Your task to perform on an android device: change notifications settings Image 0: 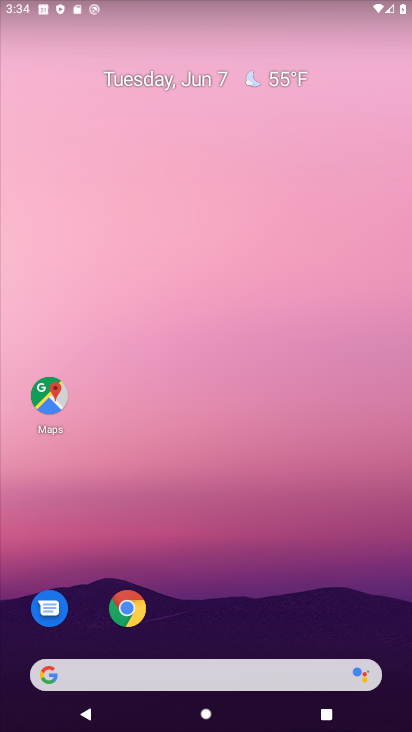
Step 0: drag from (199, 641) to (235, 160)
Your task to perform on an android device: change notifications settings Image 1: 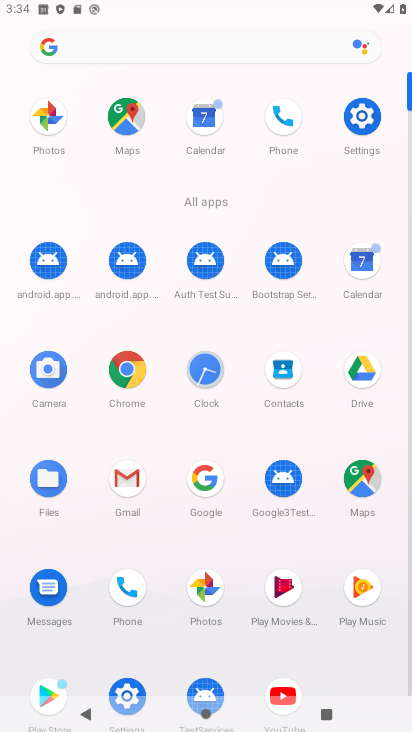
Step 1: click (134, 686)
Your task to perform on an android device: change notifications settings Image 2: 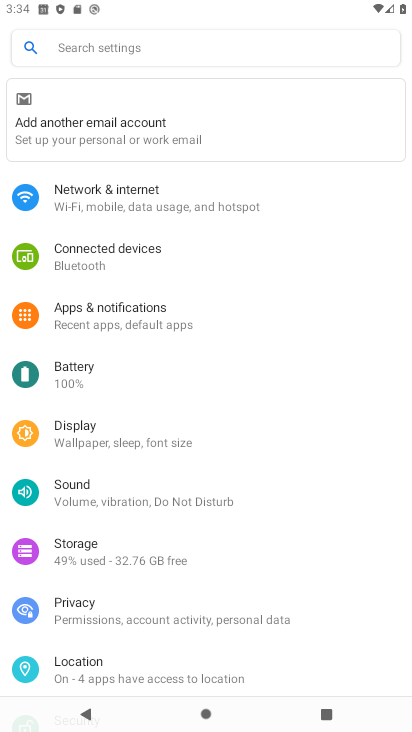
Step 2: click (154, 304)
Your task to perform on an android device: change notifications settings Image 3: 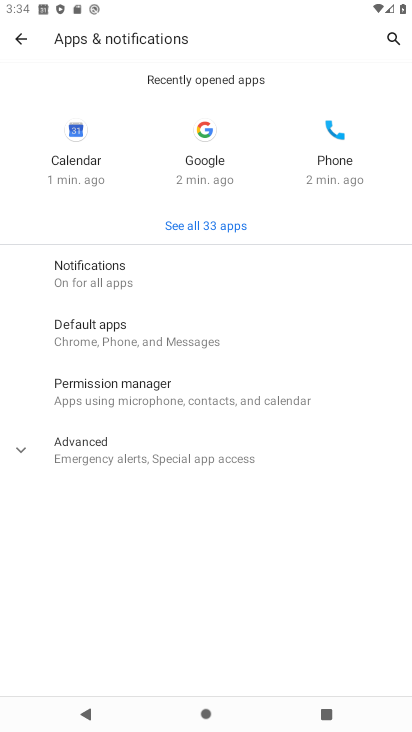
Step 3: click (122, 278)
Your task to perform on an android device: change notifications settings Image 4: 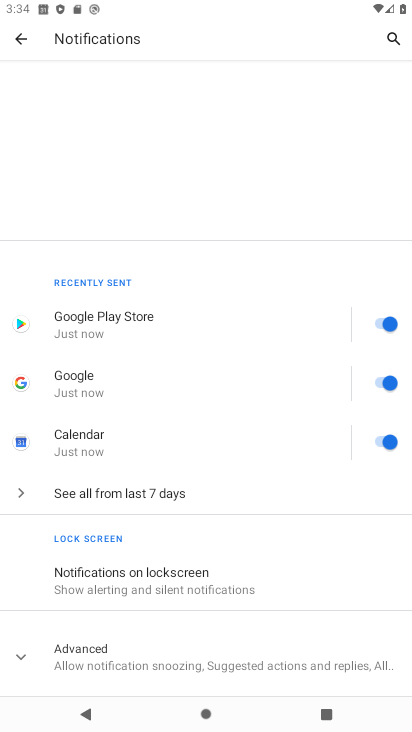
Step 4: click (137, 259)
Your task to perform on an android device: change notifications settings Image 5: 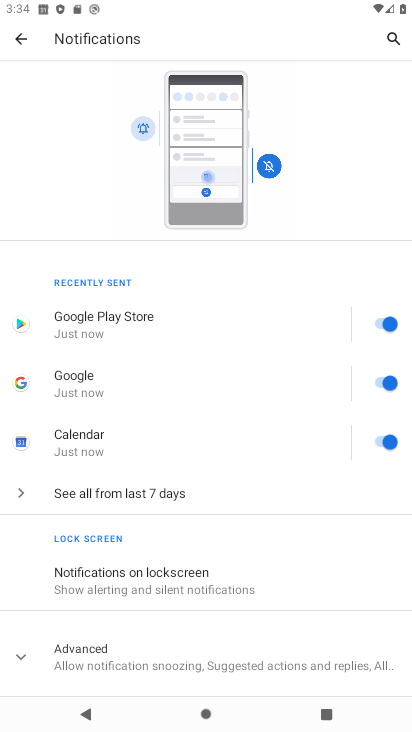
Step 5: click (126, 498)
Your task to perform on an android device: change notifications settings Image 6: 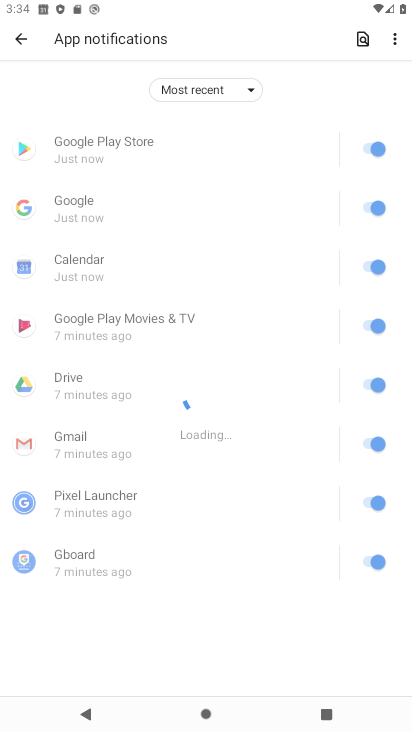
Step 6: click (204, 103)
Your task to perform on an android device: change notifications settings Image 7: 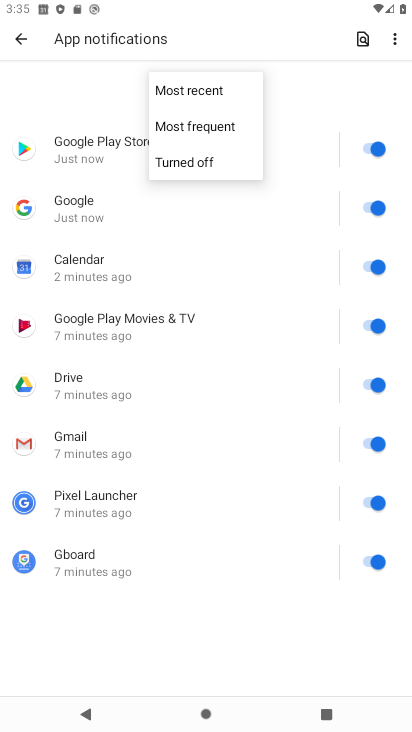
Step 7: click (179, 158)
Your task to perform on an android device: change notifications settings Image 8: 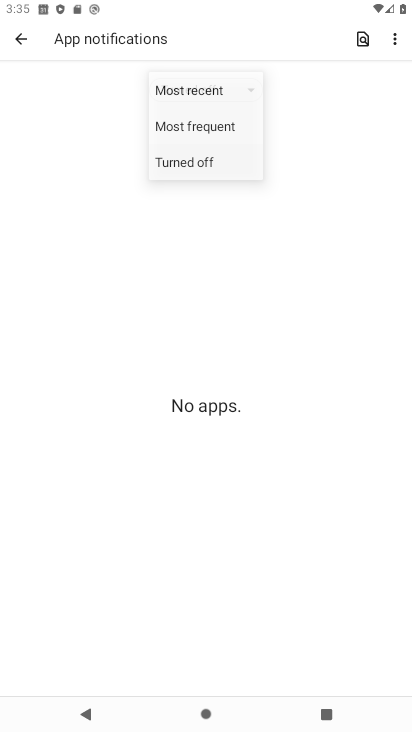
Step 8: task complete